Your task to perform on an android device: What's a good restaurant in Philadelphia? Image 0: 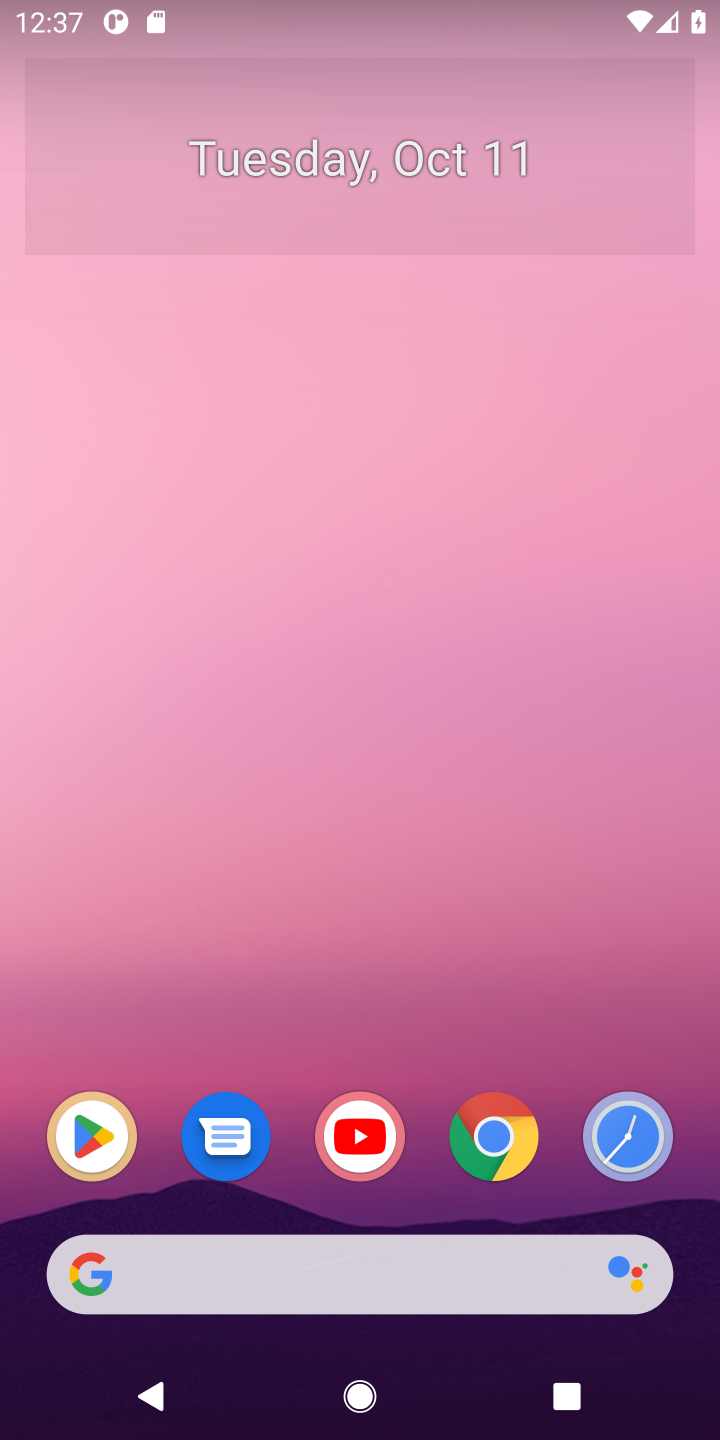
Step 0: press home button
Your task to perform on an android device: What's a good restaurant in Philadelphia? Image 1: 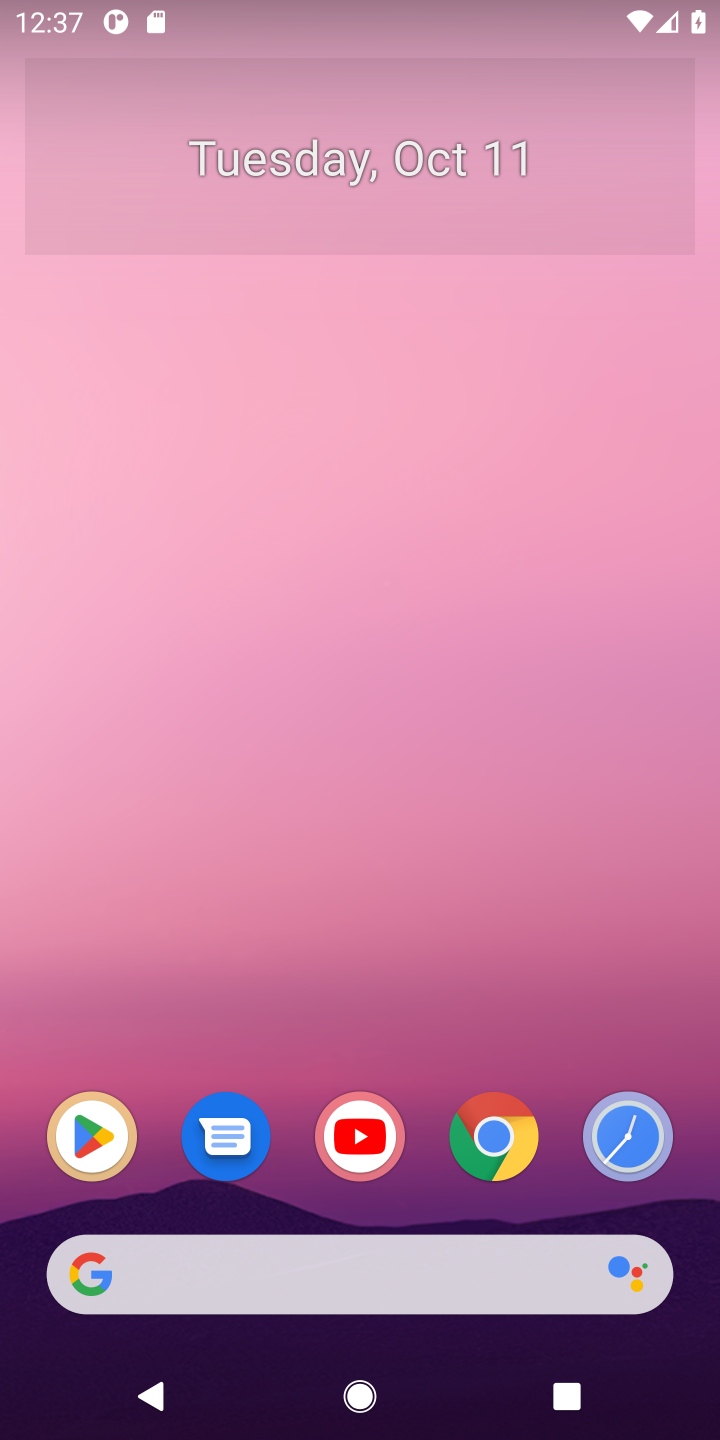
Step 1: click (137, 1276)
Your task to perform on an android device: What's a good restaurant in Philadelphia? Image 2: 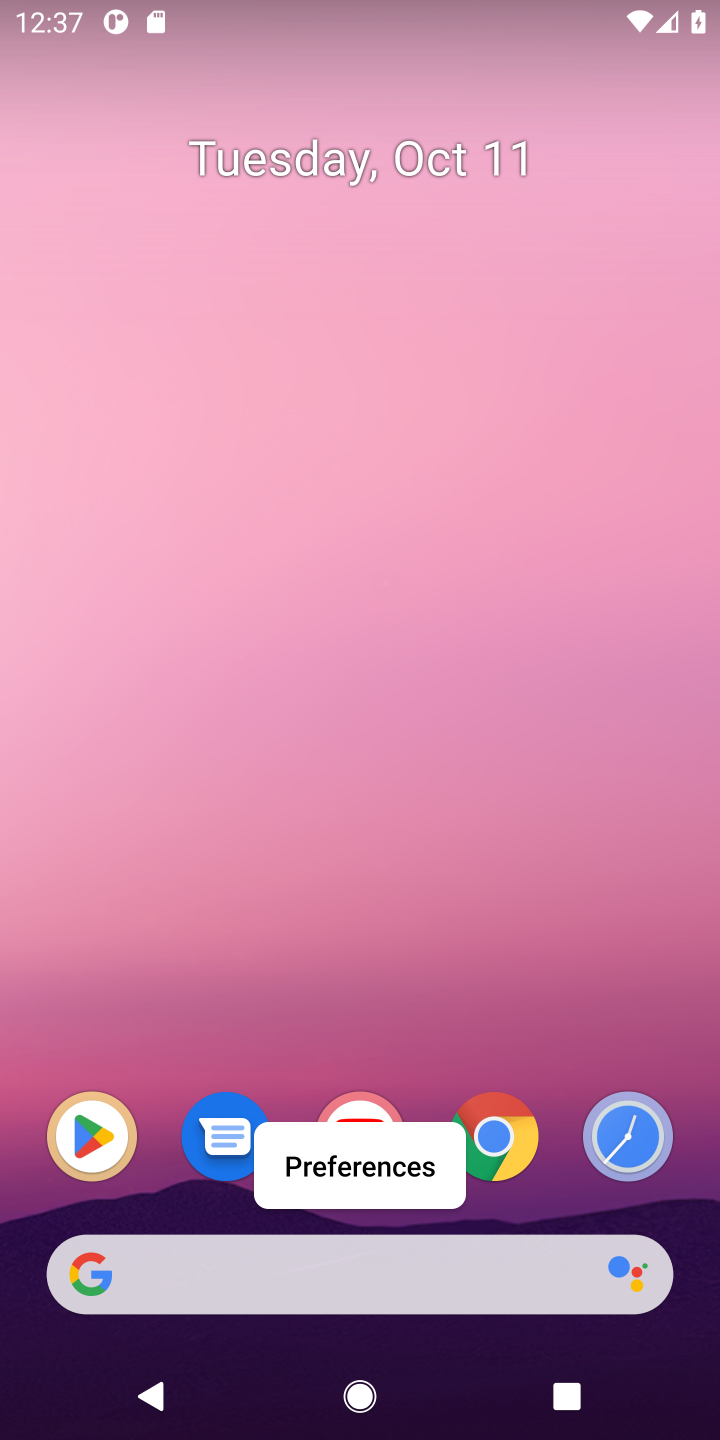
Step 2: click (122, 1276)
Your task to perform on an android device: What's a good restaurant in Philadelphia? Image 3: 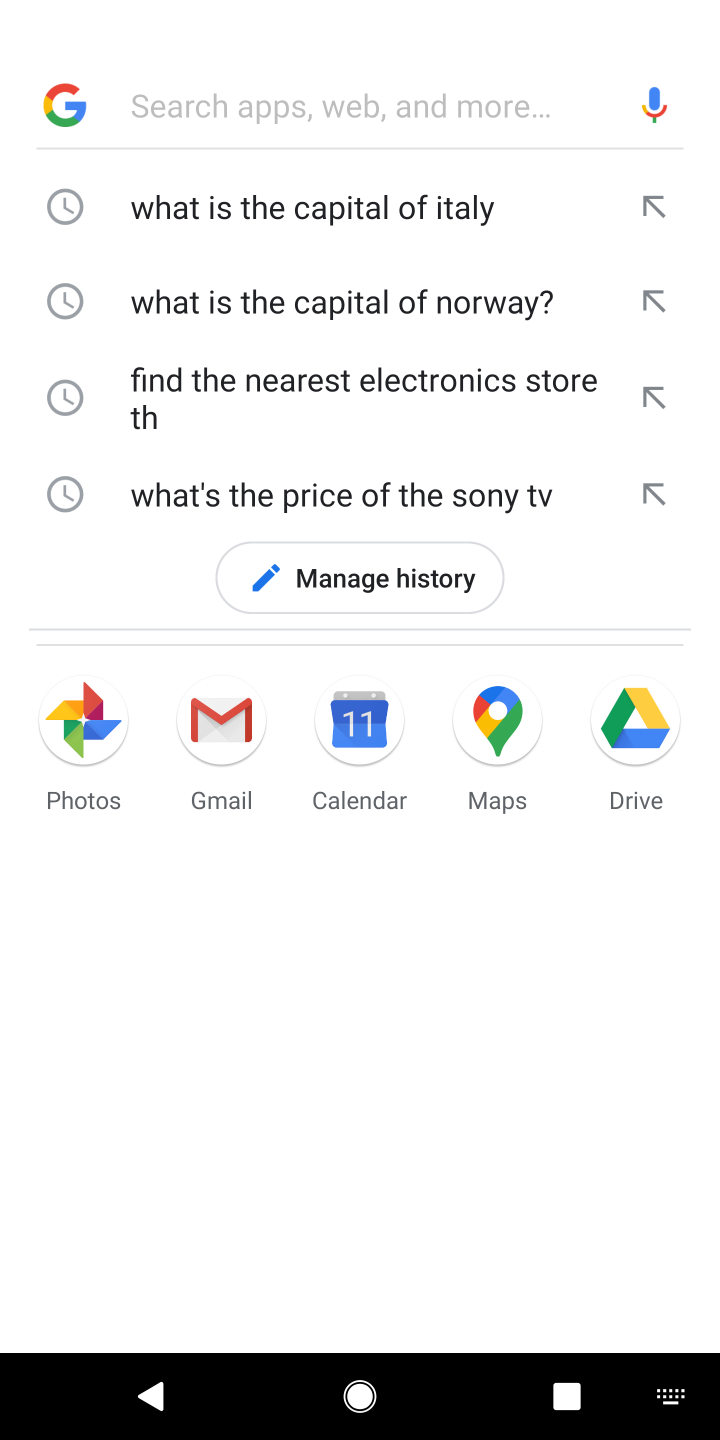
Step 3: type "What's a good restaurant in Philadelphia?"
Your task to perform on an android device: What's a good restaurant in Philadelphia? Image 4: 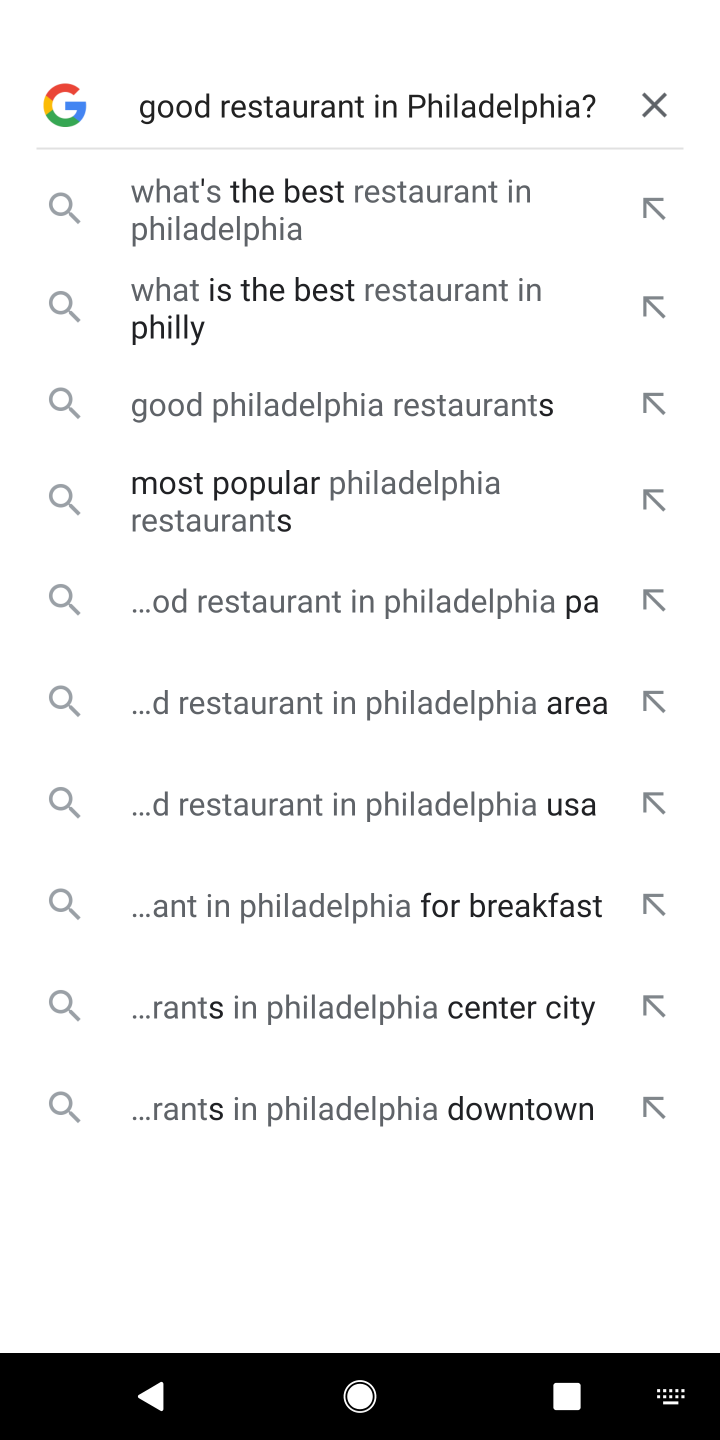
Step 4: press enter
Your task to perform on an android device: What's a good restaurant in Philadelphia? Image 5: 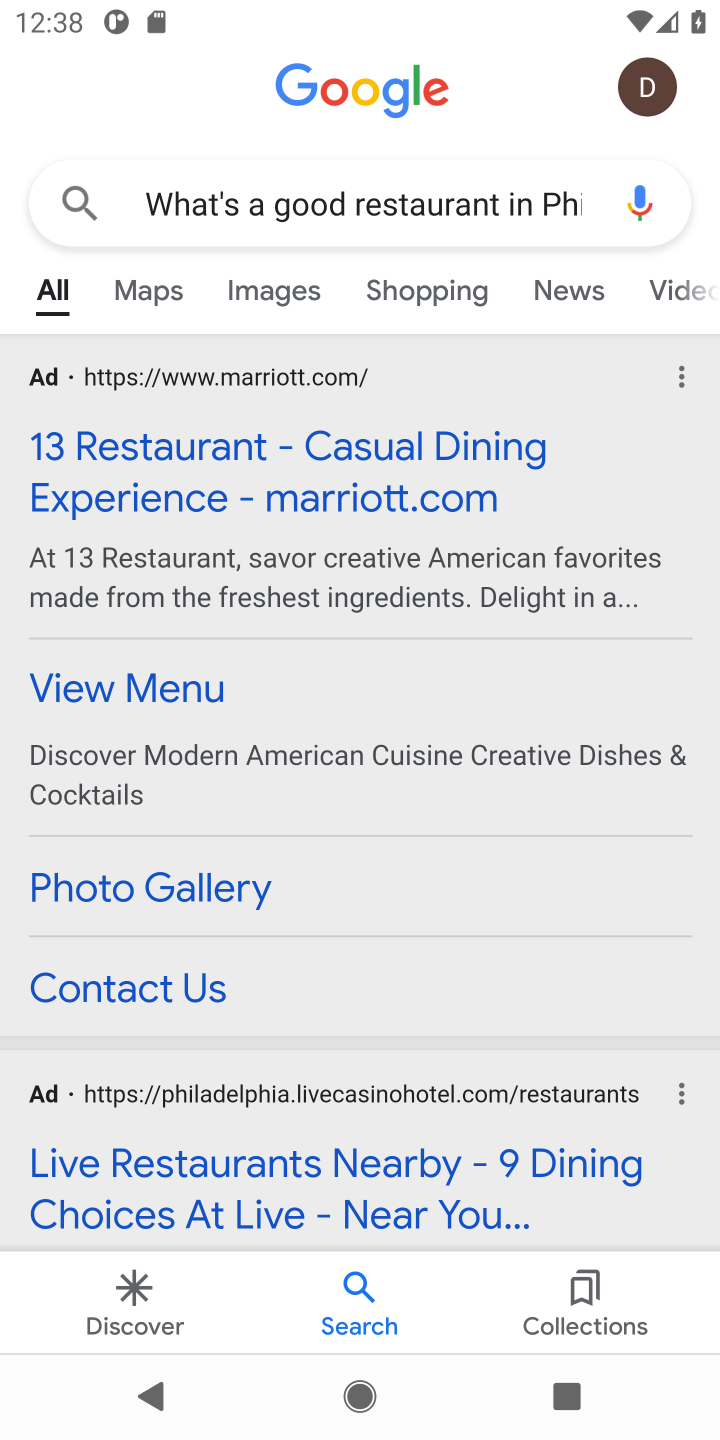
Step 5: drag from (415, 918) to (425, 584)
Your task to perform on an android device: What's a good restaurant in Philadelphia? Image 6: 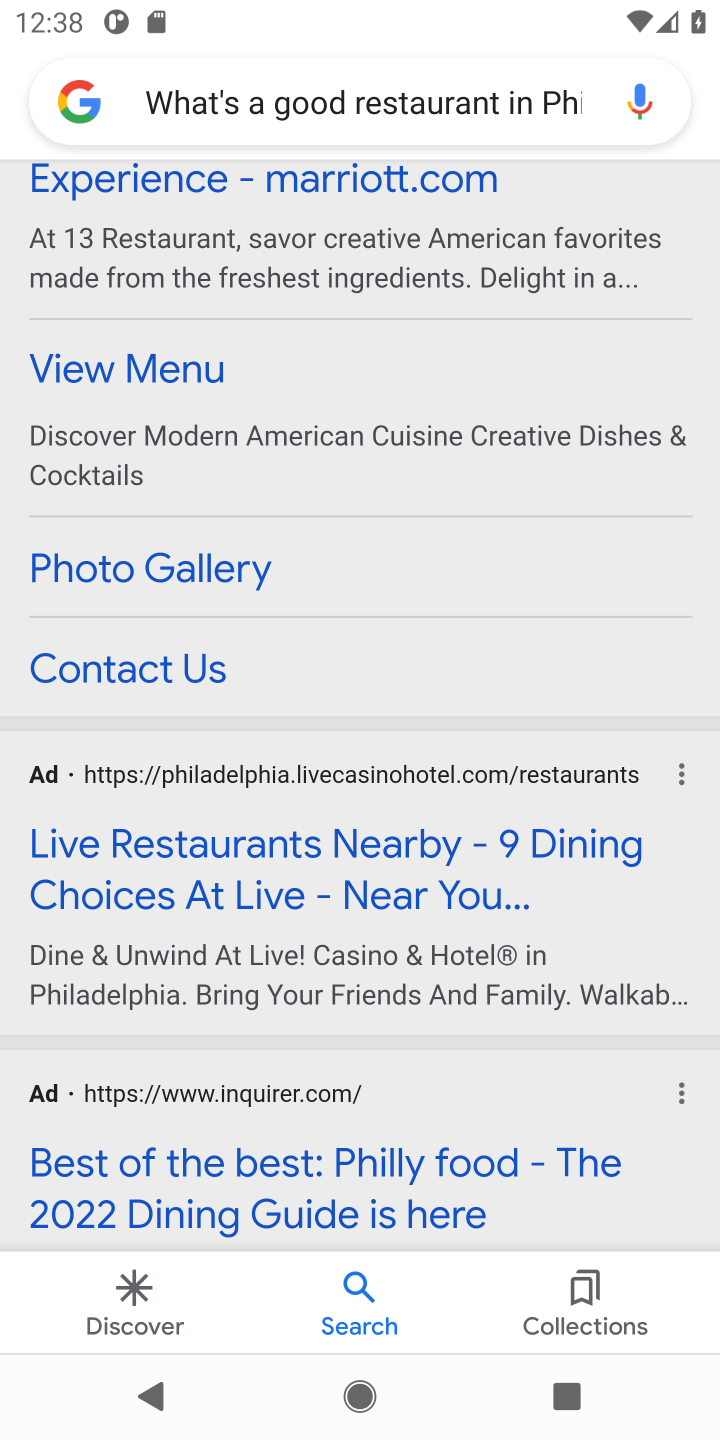
Step 6: drag from (493, 1003) to (493, 661)
Your task to perform on an android device: What's a good restaurant in Philadelphia? Image 7: 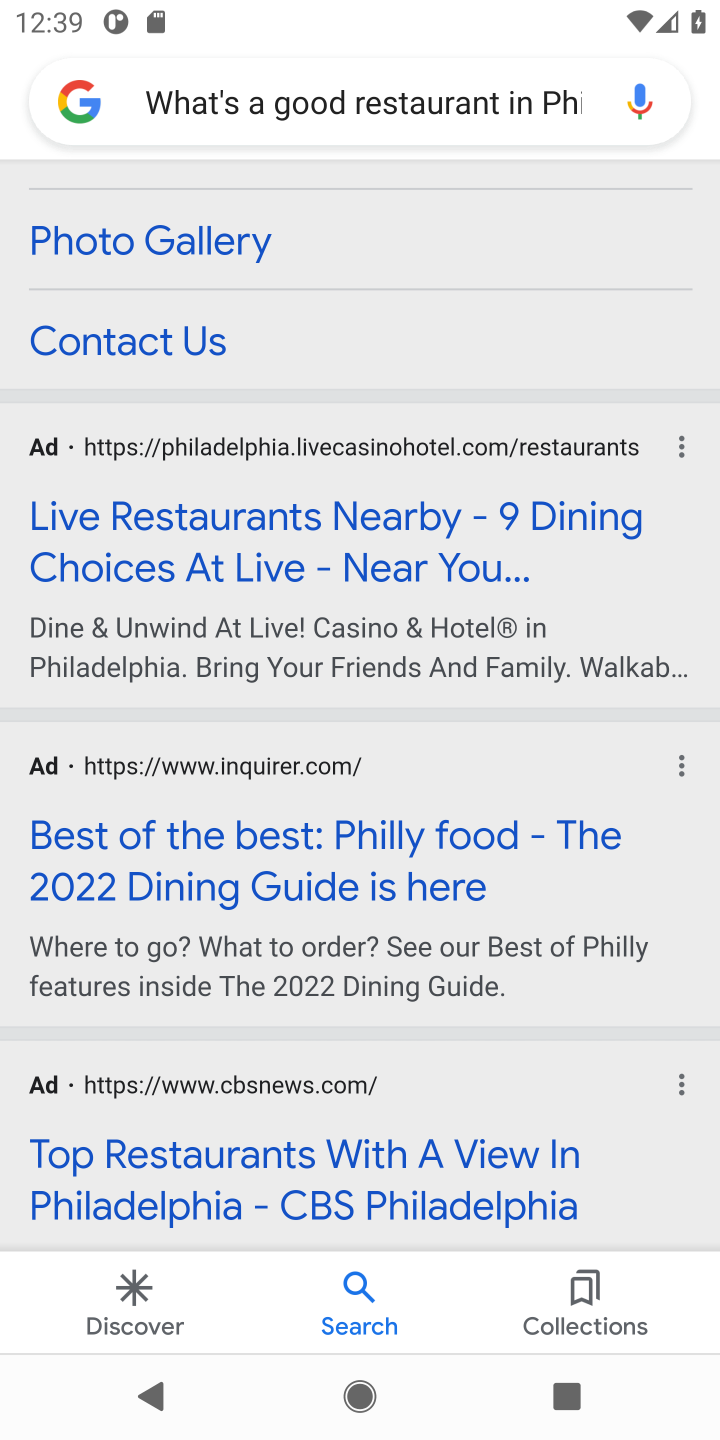
Step 7: drag from (418, 1059) to (448, 502)
Your task to perform on an android device: What's a good restaurant in Philadelphia? Image 8: 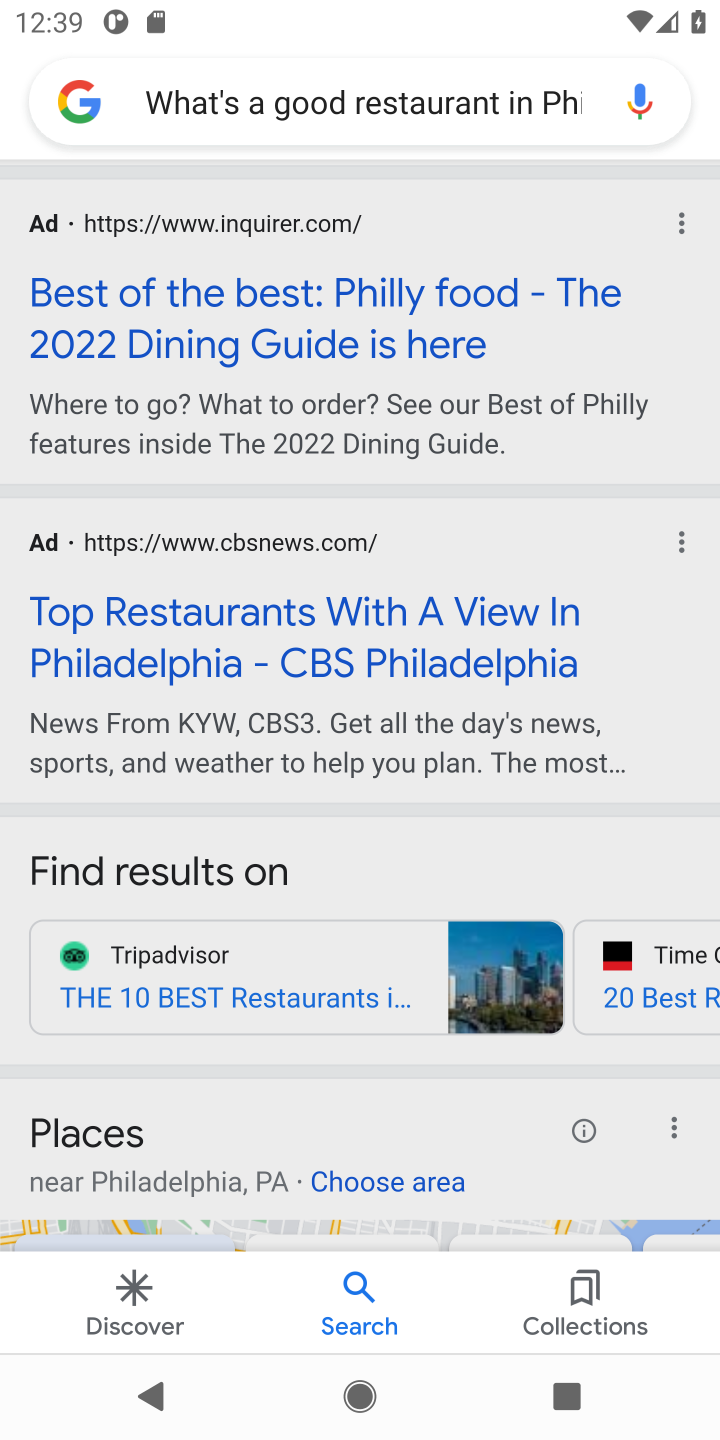
Step 8: click (417, 645)
Your task to perform on an android device: What's a good restaurant in Philadelphia? Image 9: 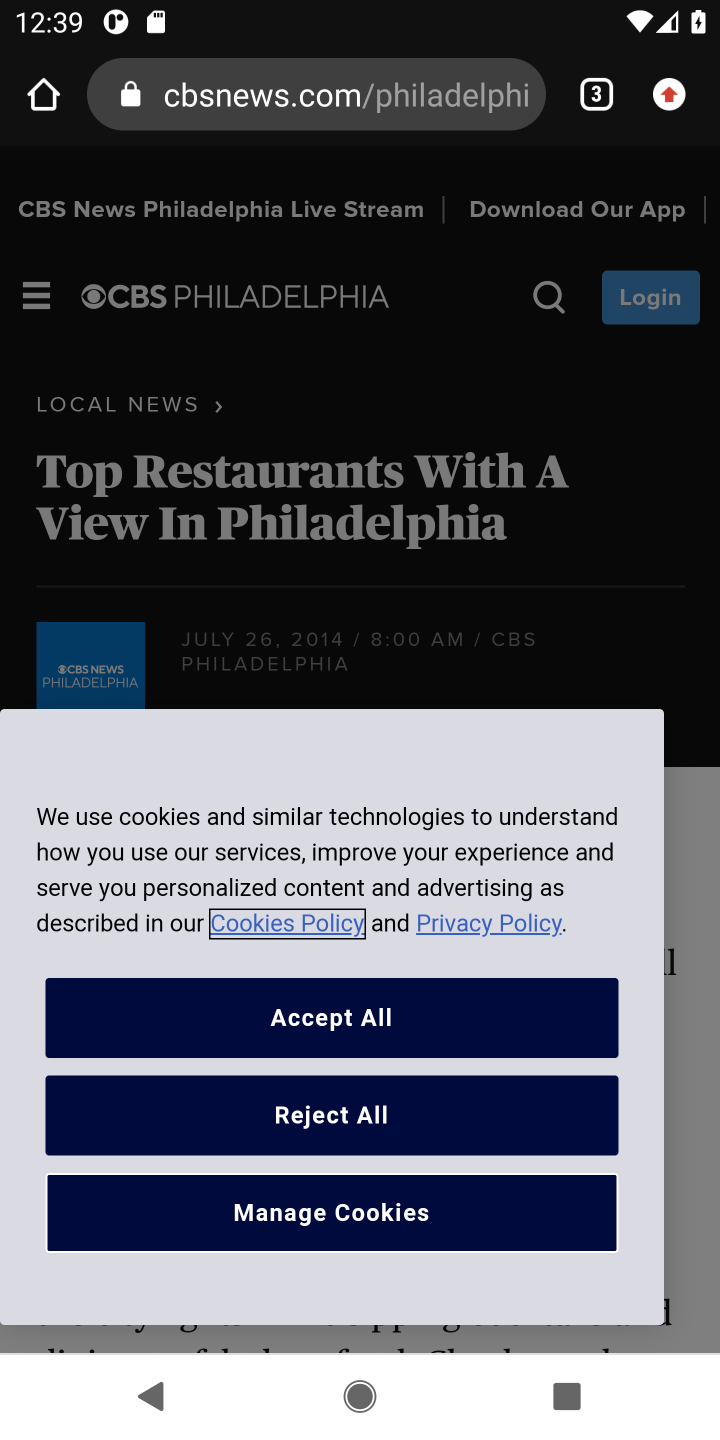
Step 9: click (401, 1013)
Your task to perform on an android device: What's a good restaurant in Philadelphia? Image 10: 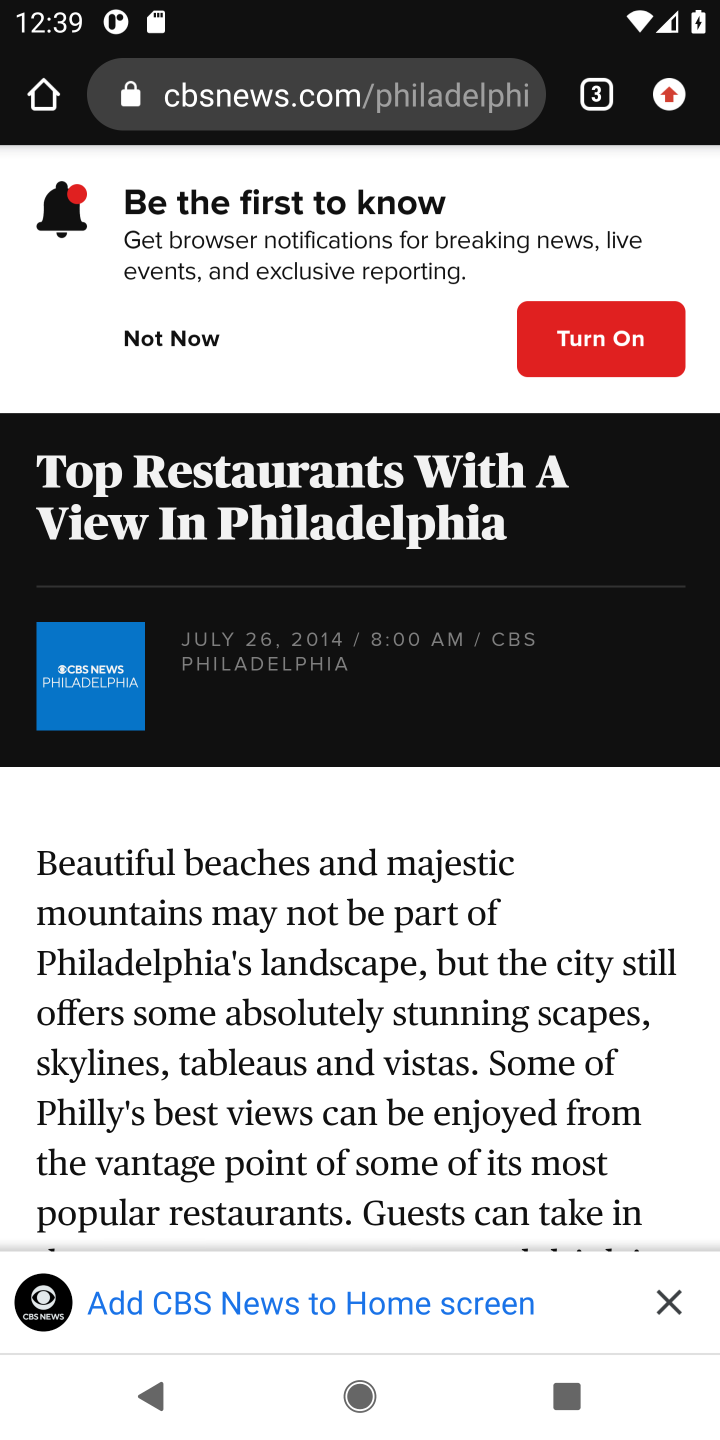
Step 10: task complete